Your task to perform on an android device: Open maps Image 0: 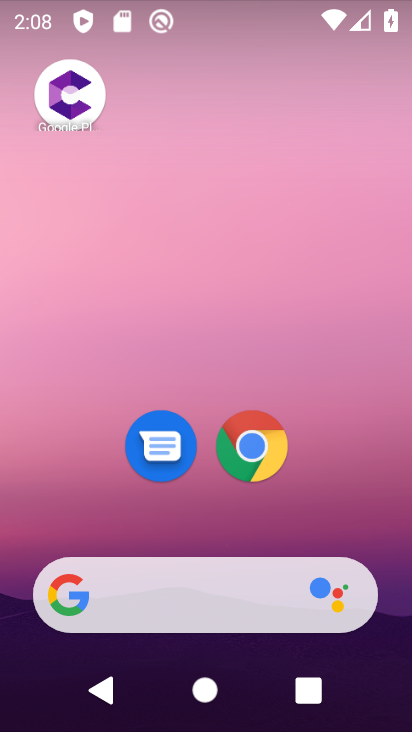
Step 0: drag from (198, 530) to (271, 66)
Your task to perform on an android device: Open maps Image 1: 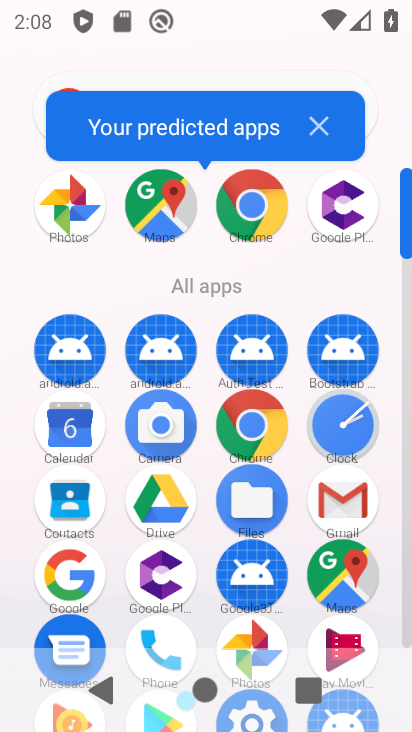
Step 1: click (159, 193)
Your task to perform on an android device: Open maps Image 2: 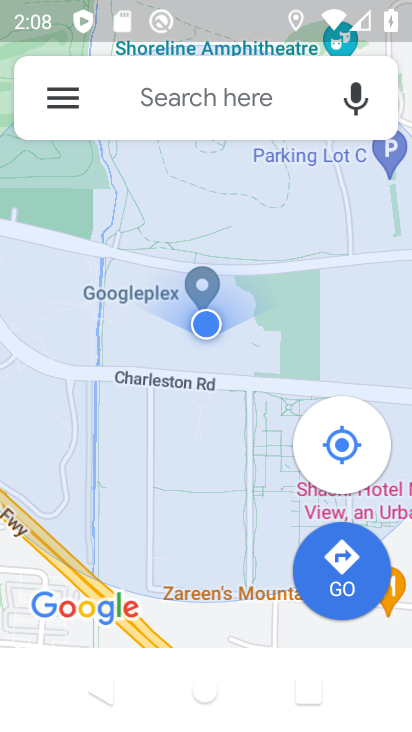
Step 2: task complete